Your task to perform on an android device: Open battery settings Image 0: 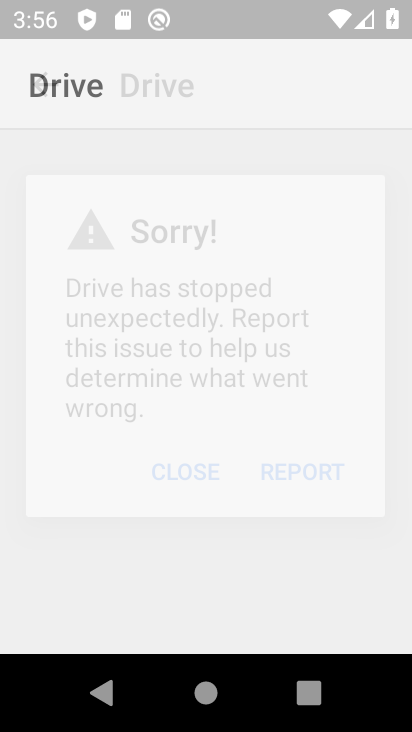
Step 0: press home button
Your task to perform on an android device: Open battery settings Image 1: 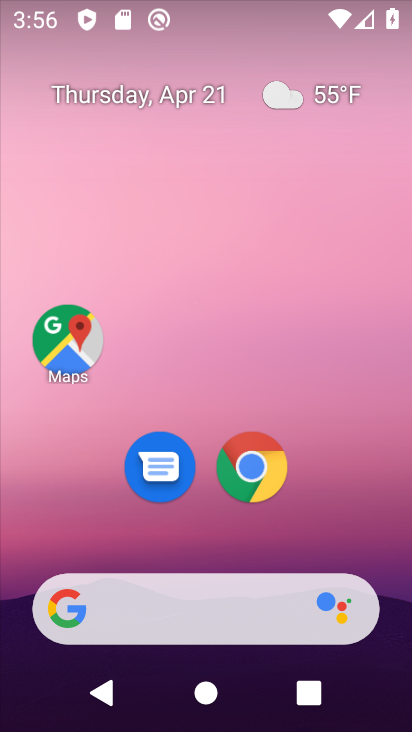
Step 1: drag from (148, 667) to (260, 27)
Your task to perform on an android device: Open battery settings Image 2: 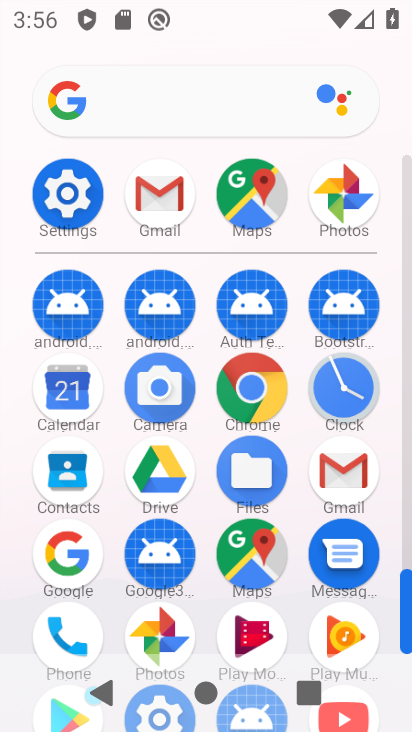
Step 2: drag from (150, 521) to (241, 173)
Your task to perform on an android device: Open battery settings Image 3: 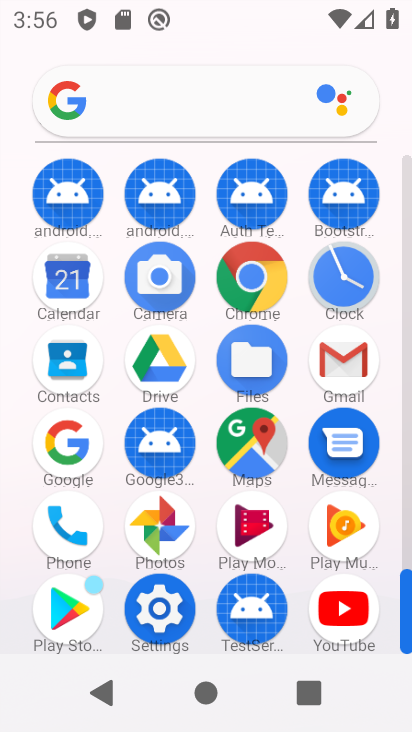
Step 3: click (150, 591)
Your task to perform on an android device: Open battery settings Image 4: 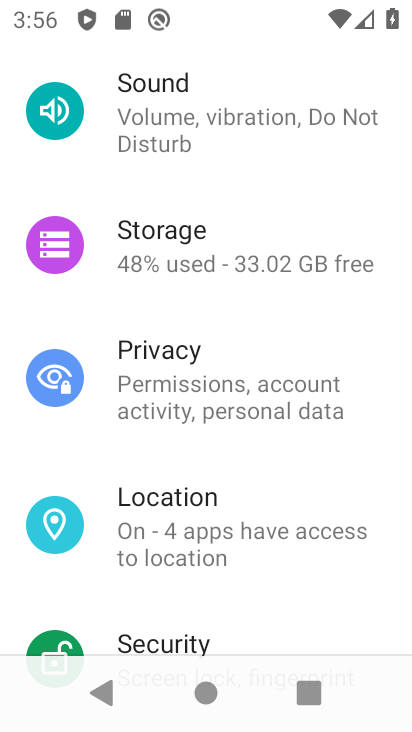
Step 4: drag from (170, 543) to (258, 295)
Your task to perform on an android device: Open battery settings Image 5: 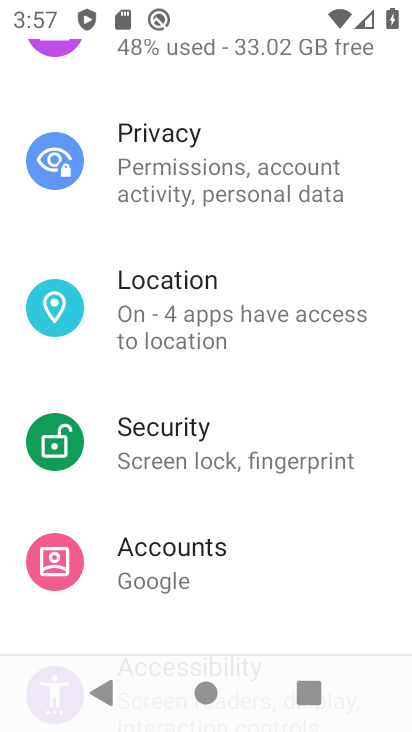
Step 5: drag from (203, 520) to (232, 344)
Your task to perform on an android device: Open battery settings Image 6: 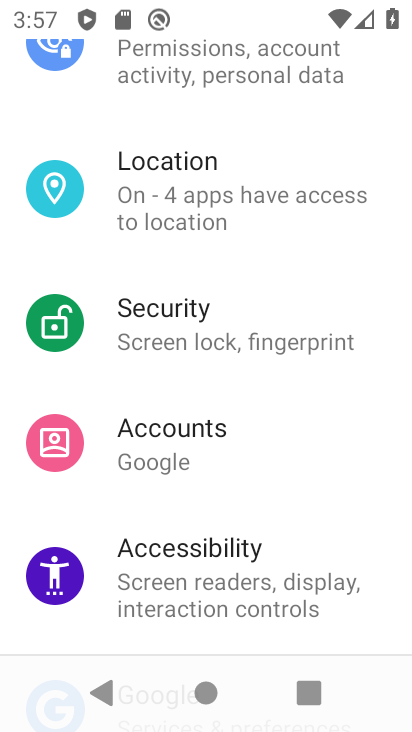
Step 6: drag from (119, 467) to (182, 186)
Your task to perform on an android device: Open battery settings Image 7: 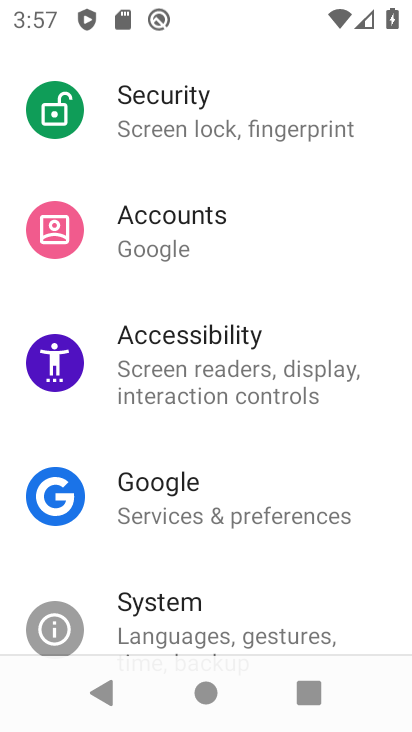
Step 7: drag from (154, 494) to (146, 230)
Your task to perform on an android device: Open battery settings Image 8: 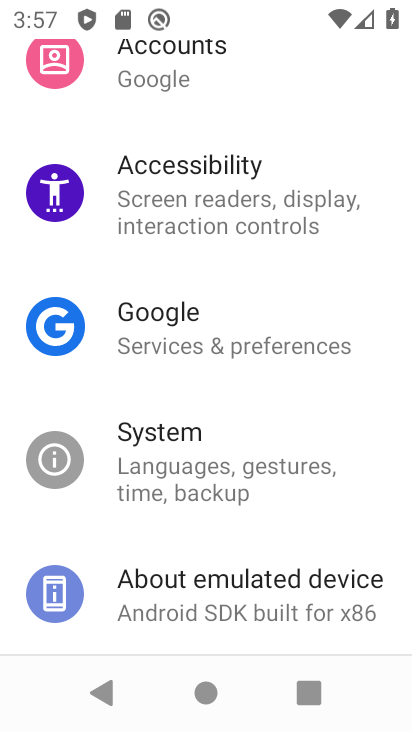
Step 8: drag from (186, 502) to (190, 156)
Your task to perform on an android device: Open battery settings Image 9: 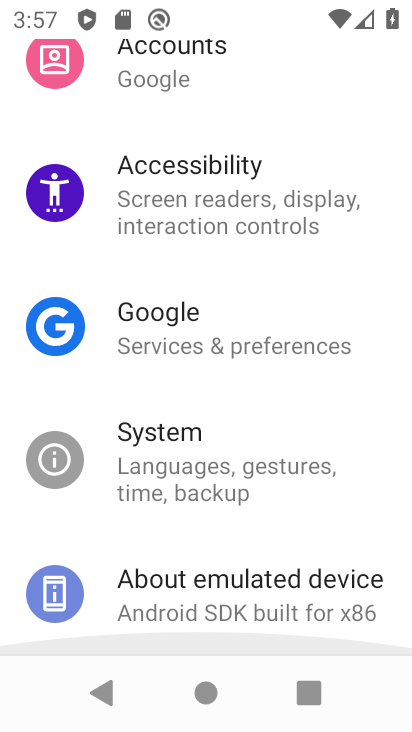
Step 9: drag from (189, 174) to (159, 549)
Your task to perform on an android device: Open battery settings Image 10: 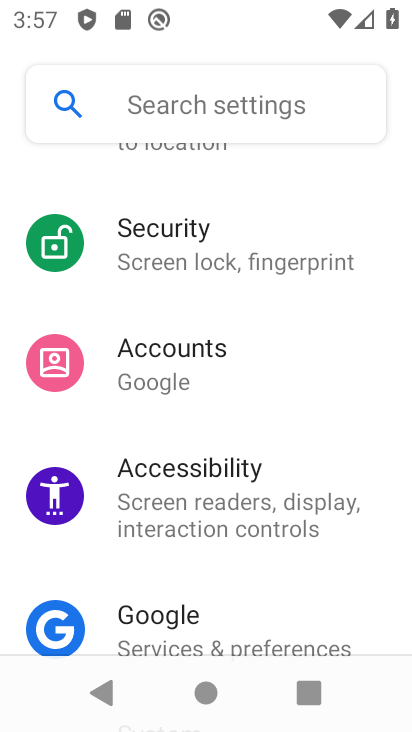
Step 10: drag from (225, 290) to (240, 552)
Your task to perform on an android device: Open battery settings Image 11: 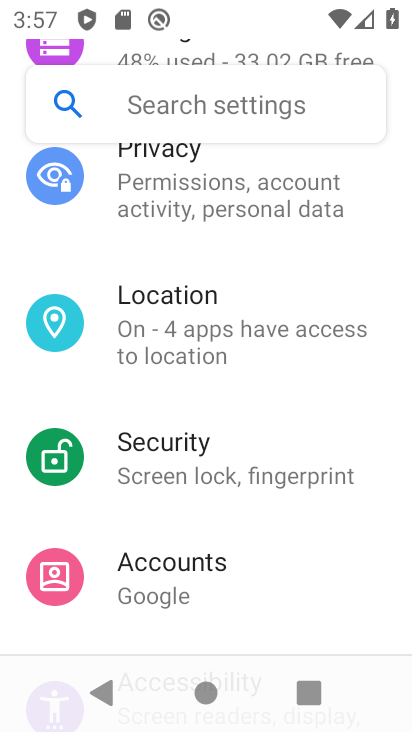
Step 11: drag from (264, 269) to (260, 528)
Your task to perform on an android device: Open battery settings Image 12: 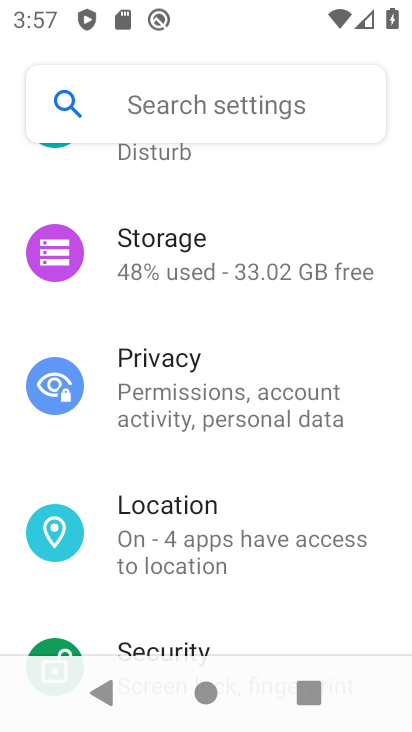
Step 12: drag from (250, 326) to (236, 566)
Your task to perform on an android device: Open battery settings Image 13: 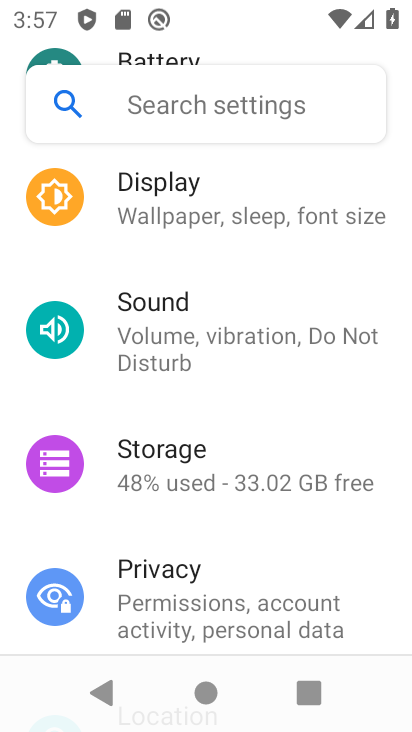
Step 13: drag from (246, 340) to (183, 563)
Your task to perform on an android device: Open battery settings Image 14: 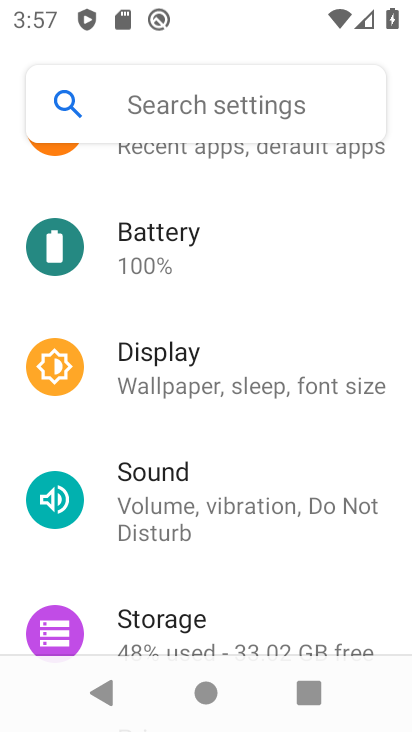
Step 14: click (218, 241)
Your task to perform on an android device: Open battery settings Image 15: 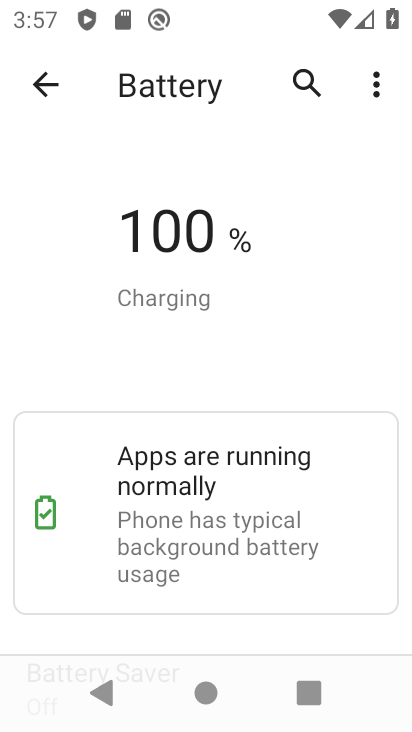
Step 15: task complete